Your task to perform on an android device: What's the weather today? Image 0: 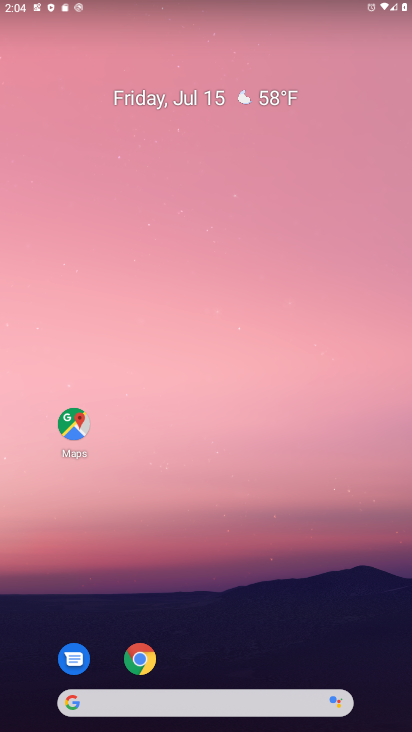
Step 0: click (242, 92)
Your task to perform on an android device: What's the weather today? Image 1: 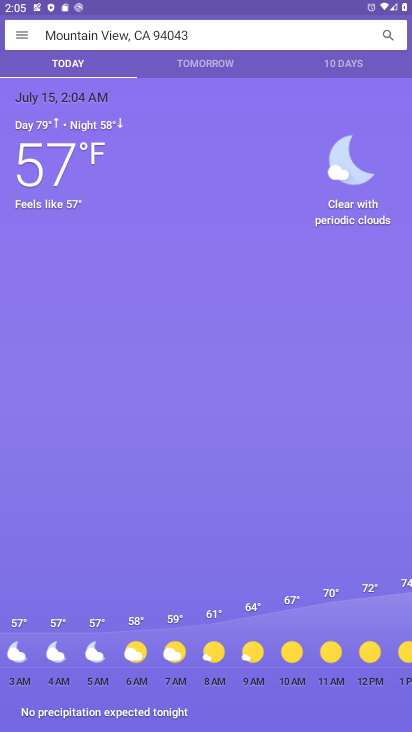
Step 1: task complete